Your task to perform on an android device: Open Google Chrome and open the bookmarks view Image 0: 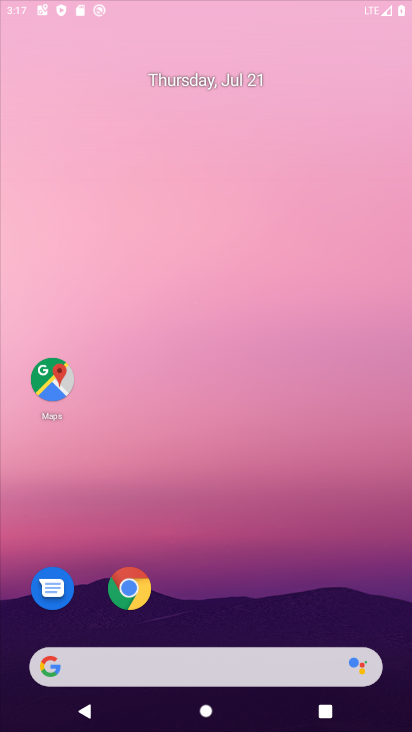
Step 0: press home button
Your task to perform on an android device: Open Google Chrome and open the bookmarks view Image 1: 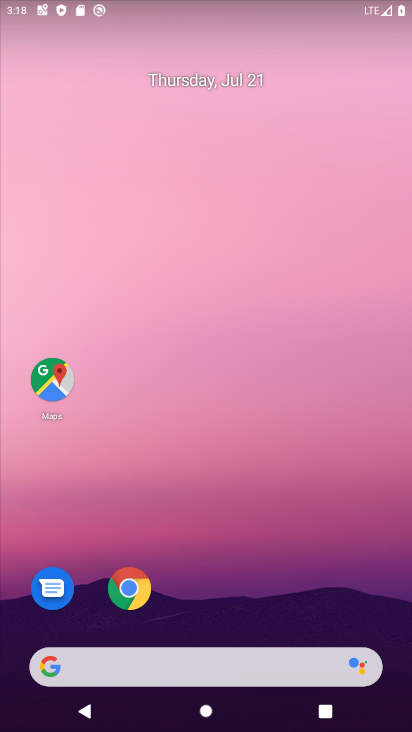
Step 1: click (129, 583)
Your task to perform on an android device: Open Google Chrome and open the bookmarks view Image 2: 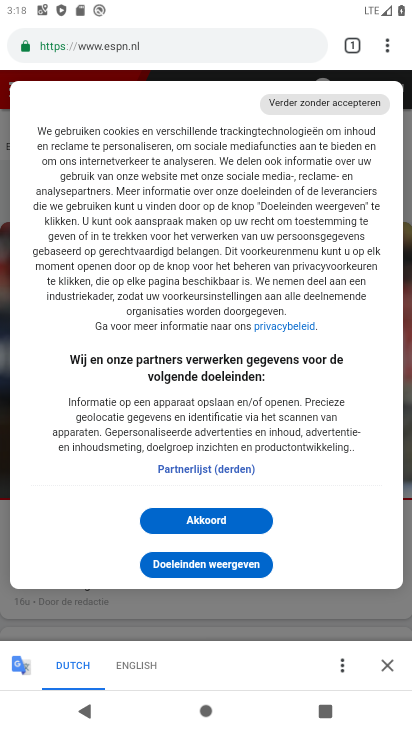
Step 2: click (389, 39)
Your task to perform on an android device: Open Google Chrome and open the bookmarks view Image 3: 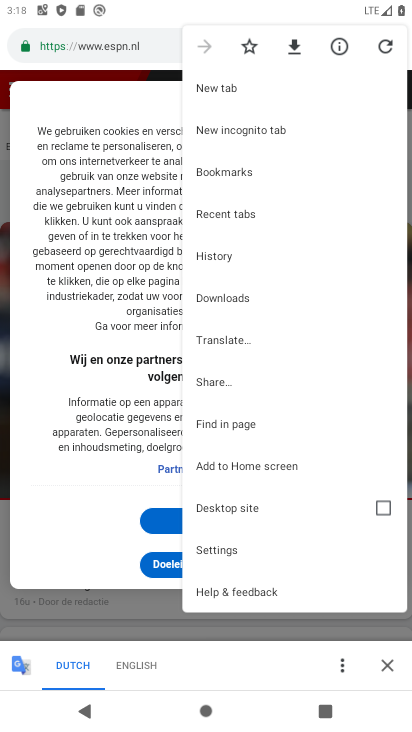
Step 3: click (250, 50)
Your task to perform on an android device: Open Google Chrome and open the bookmarks view Image 4: 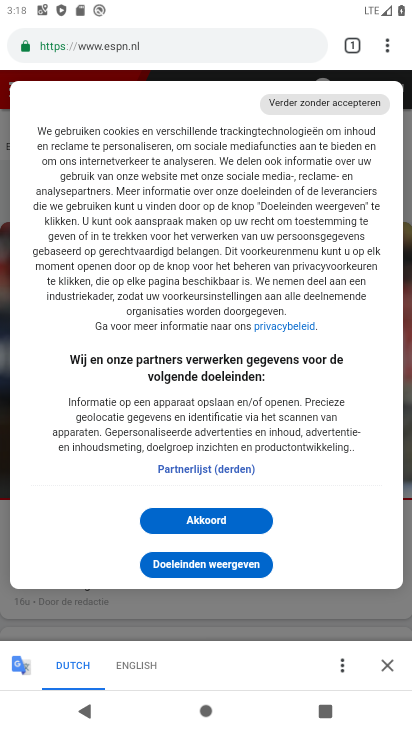
Step 4: task complete